Your task to perform on an android device: Go to internet settings Image 0: 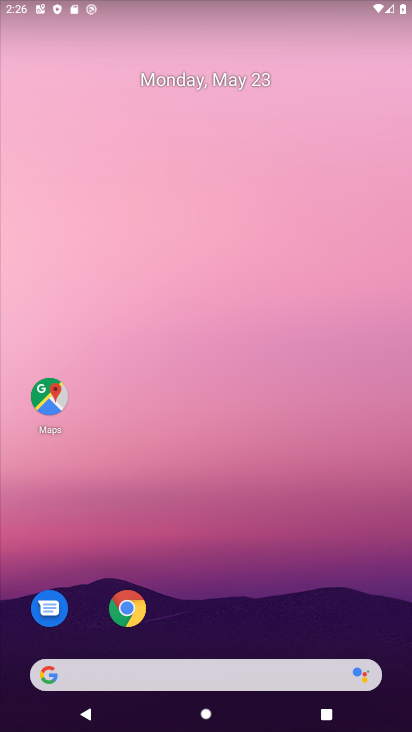
Step 0: drag from (232, 607) to (311, 7)
Your task to perform on an android device: Go to internet settings Image 1: 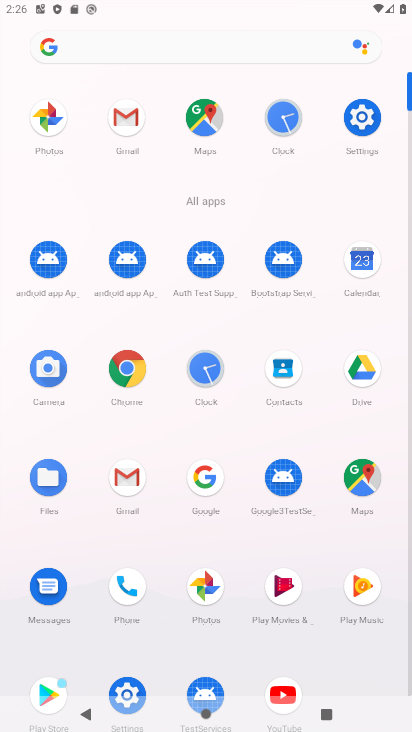
Step 1: click (371, 124)
Your task to perform on an android device: Go to internet settings Image 2: 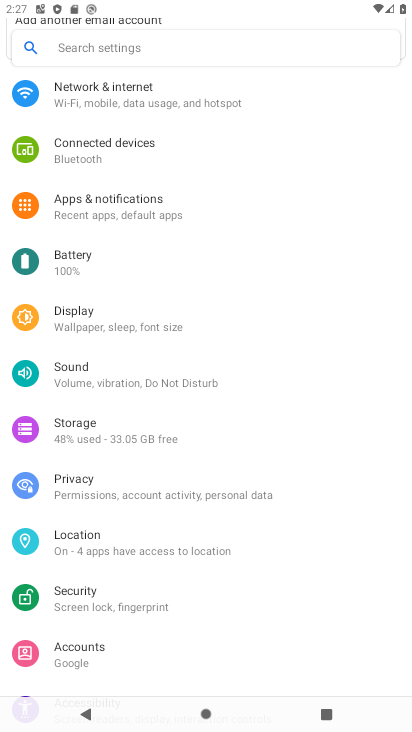
Step 2: click (149, 97)
Your task to perform on an android device: Go to internet settings Image 3: 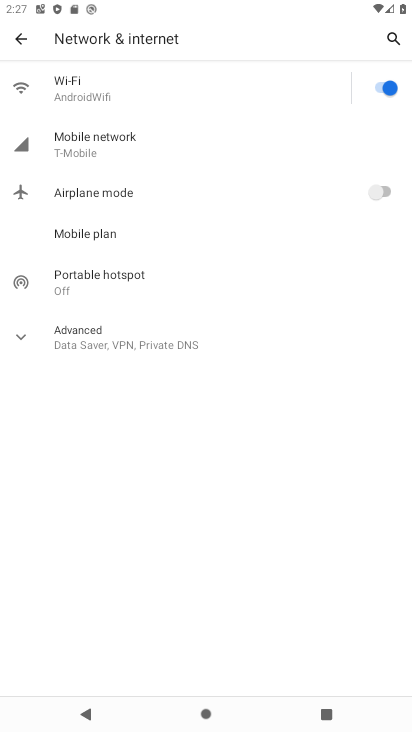
Step 3: click (170, 285)
Your task to perform on an android device: Go to internet settings Image 4: 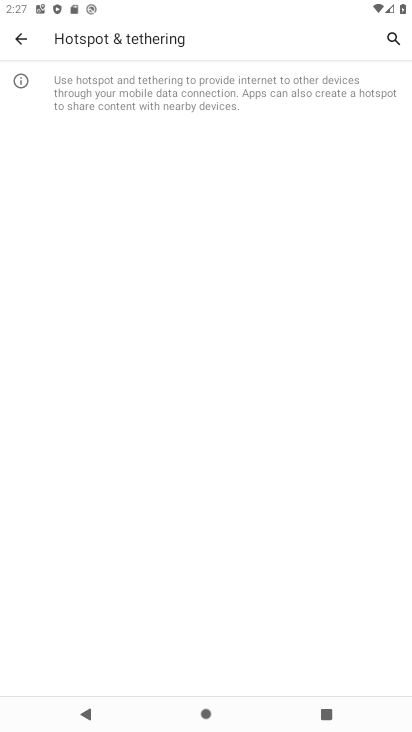
Step 4: click (18, 41)
Your task to perform on an android device: Go to internet settings Image 5: 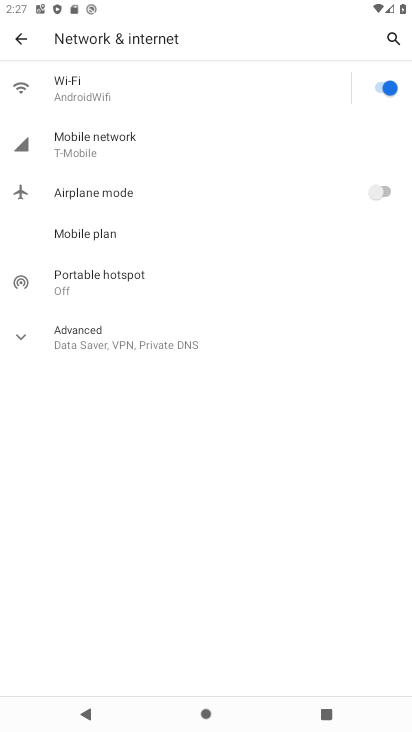
Step 5: task complete